Your task to perform on an android device: Open the stopwatch Image 0: 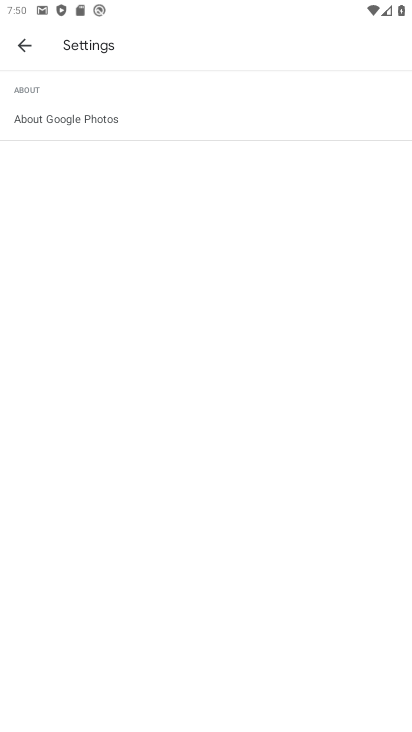
Step 0: press home button
Your task to perform on an android device: Open the stopwatch Image 1: 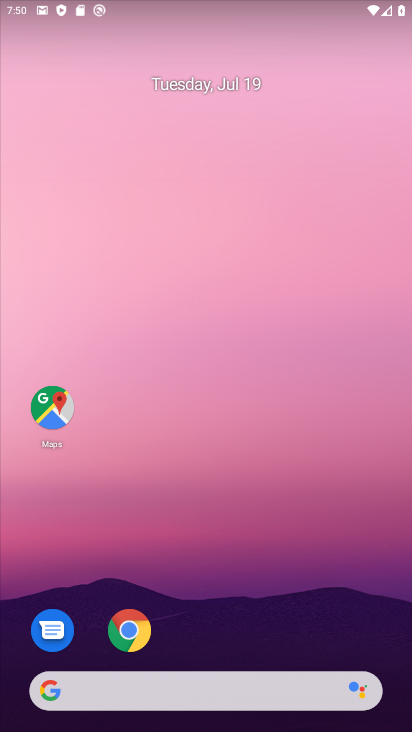
Step 1: drag from (200, 536) to (199, 193)
Your task to perform on an android device: Open the stopwatch Image 2: 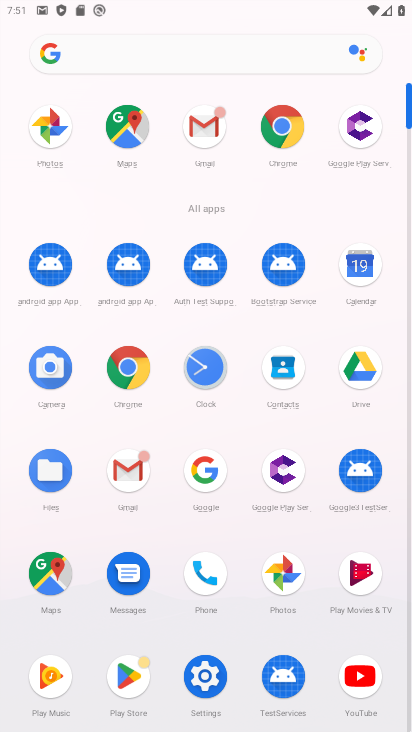
Step 2: click (198, 371)
Your task to perform on an android device: Open the stopwatch Image 3: 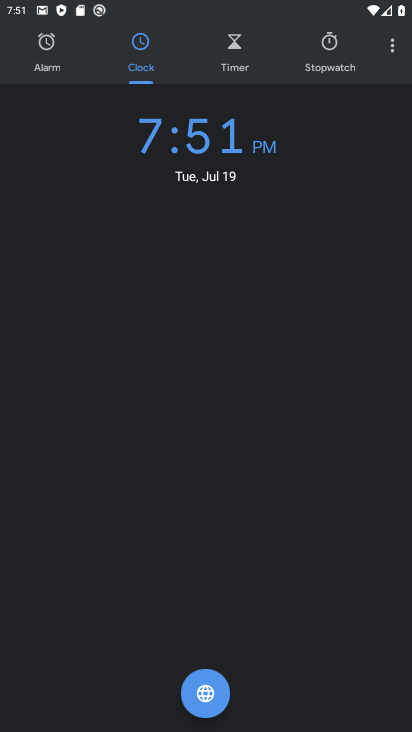
Step 3: click (328, 57)
Your task to perform on an android device: Open the stopwatch Image 4: 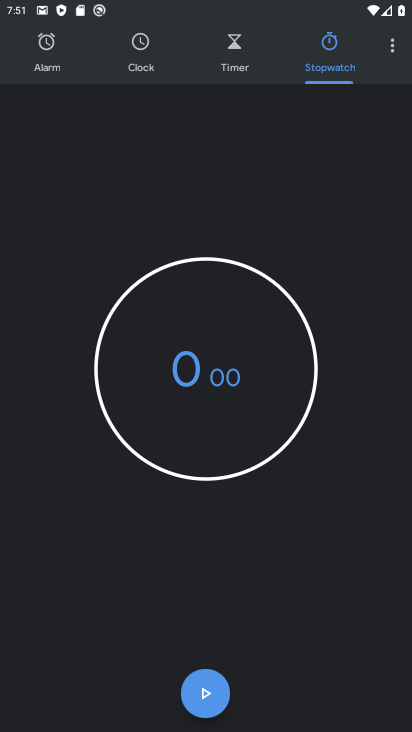
Step 4: task complete